Your task to perform on an android device: Go to Maps Image 0: 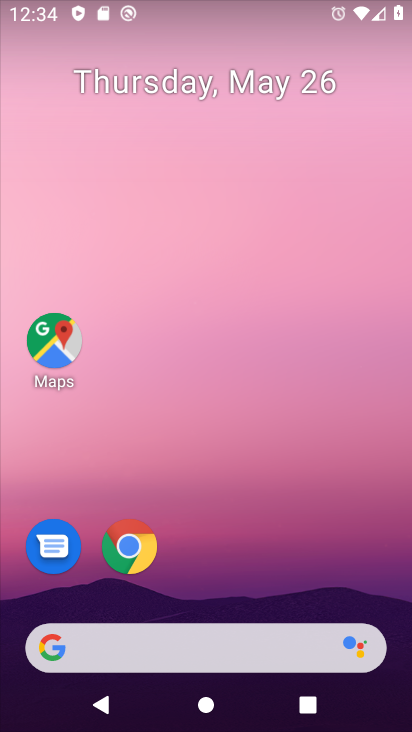
Step 0: drag from (389, 619) to (277, 45)
Your task to perform on an android device: Go to Maps Image 1: 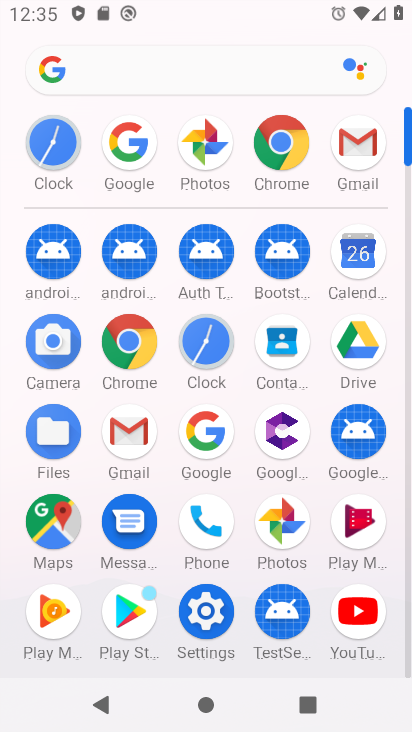
Step 1: click (54, 516)
Your task to perform on an android device: Go to Maps Image 2: 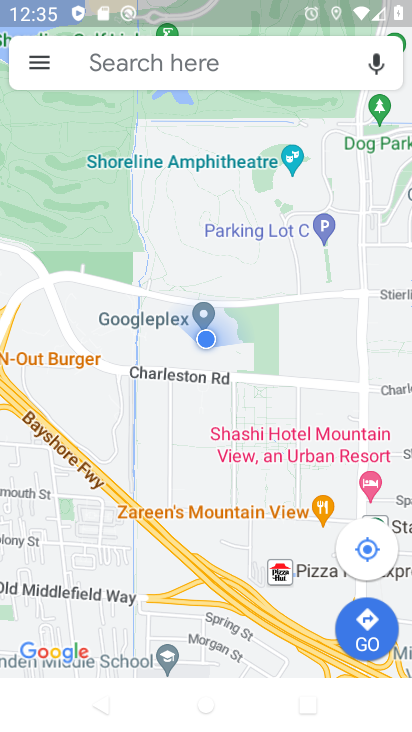
Step 2: task complete